Your task to perform on an android device: Go to sound settings Image 0: 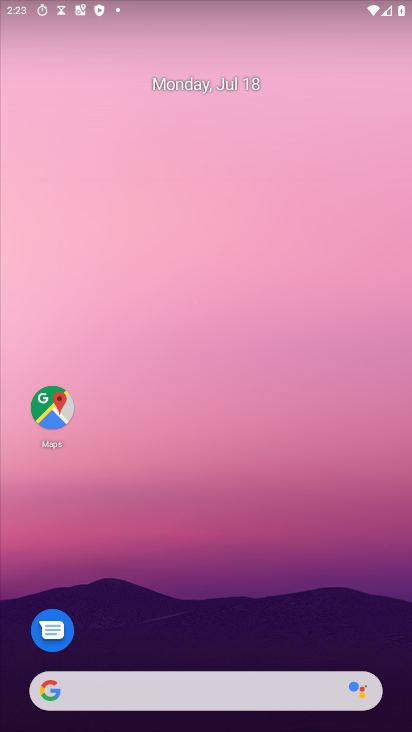
Step 0: drag from (271, 388) to (358, 14)
Your task to perform on an android device: Go to sound settings Image 1: 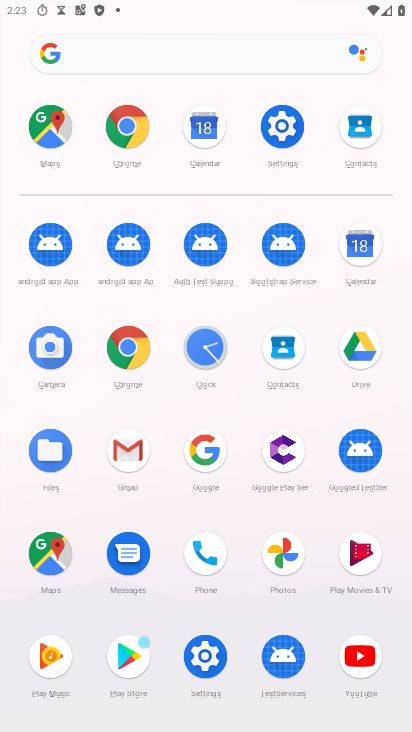
Step 1: click (295, 132)
Your task to perform on an android device: Go to sound settings Image 2: 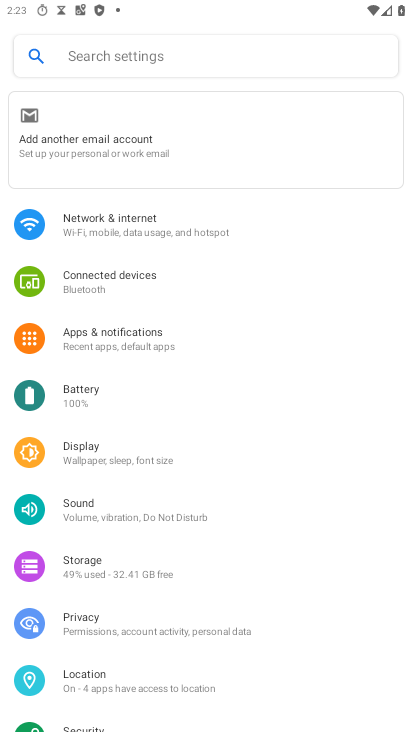
Step 2: click (110, 505)
Your task to perform on an android device: Go to sound settings Image 3: 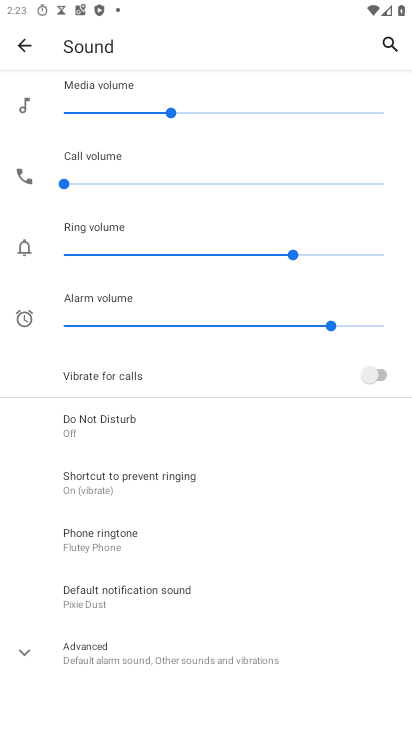
Step 3: task complete